Your task to perform on an android device: add a label to a message in the gmail app Image 0: 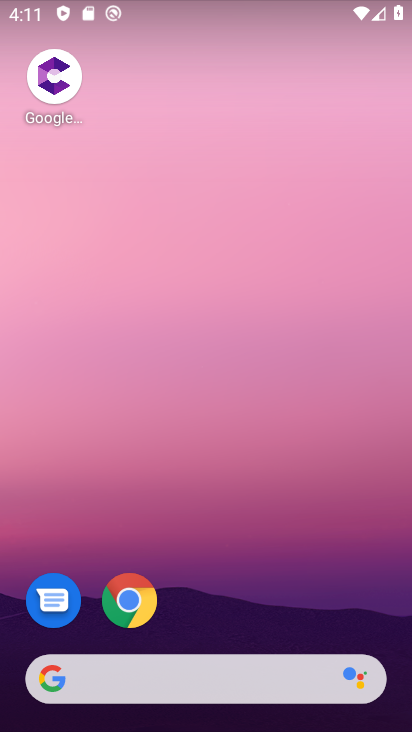
Step 0: press back button
Your task to perform on an android device: add a label to a message in the gmail app Image 1: 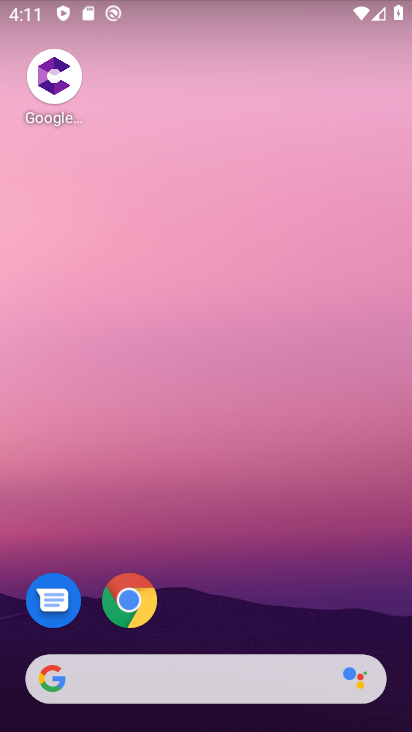
Step 1: drag from (254, 590) to (239, 130)
Your task to perform on an android device: add a label to a message in the gmail app Image 2: 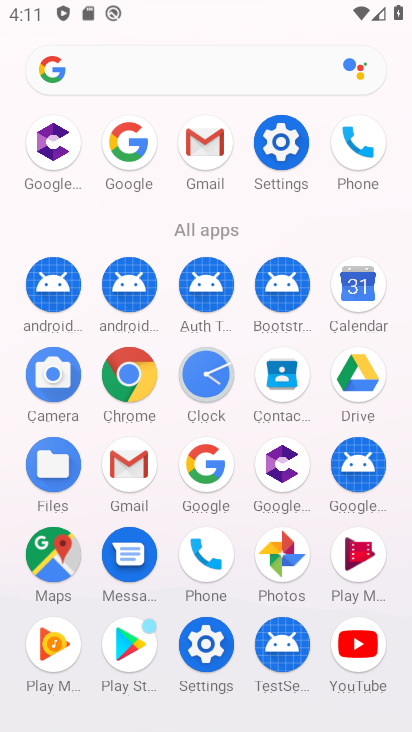
Step 2: click (207, 142)
Your task to perform on an android device: add a label to a message in the gmail app Image 3: 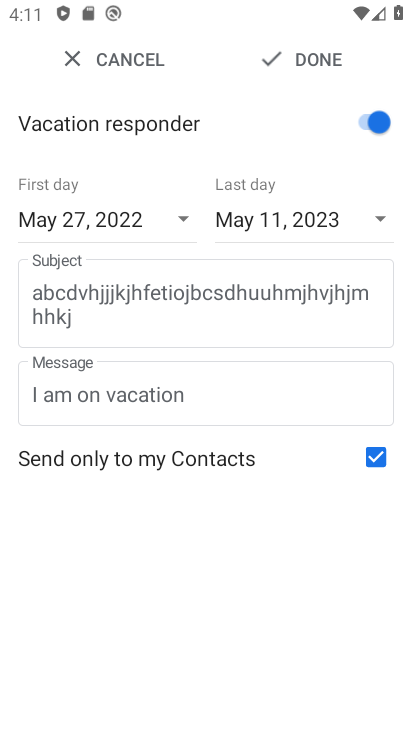
Step 3: click (72, 53)
Your task to perform on an android device: add a label to a message in the gmail app Image 4: 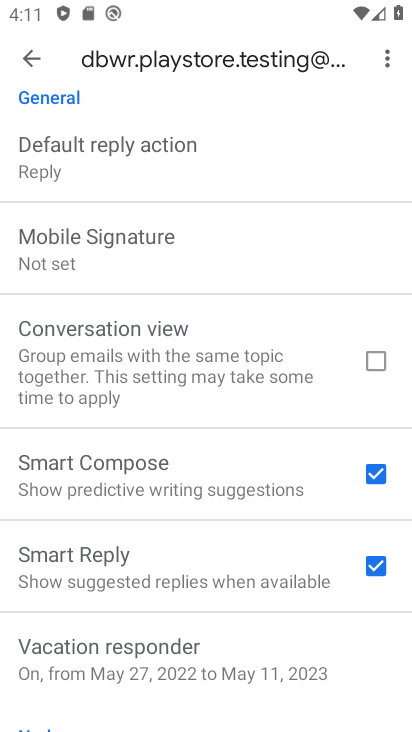
Step 4: click (33, 62)
Your task to perform on an android device: add a label to a message in the gmail app Image 5: 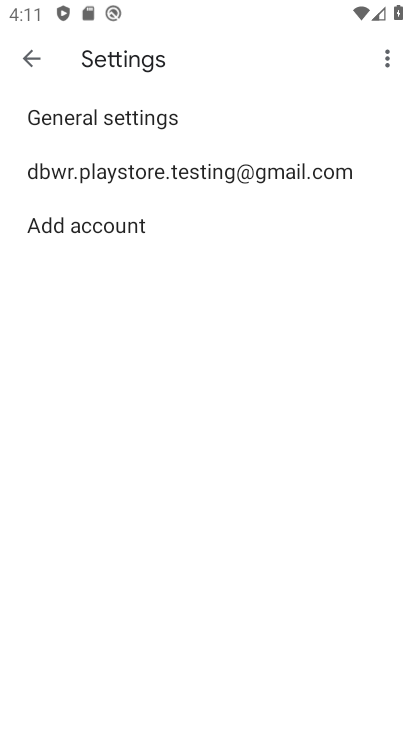
Step 5: click (35, 62)
Your task to perform on an android device: add a label to a message in the gmail app Image 6: 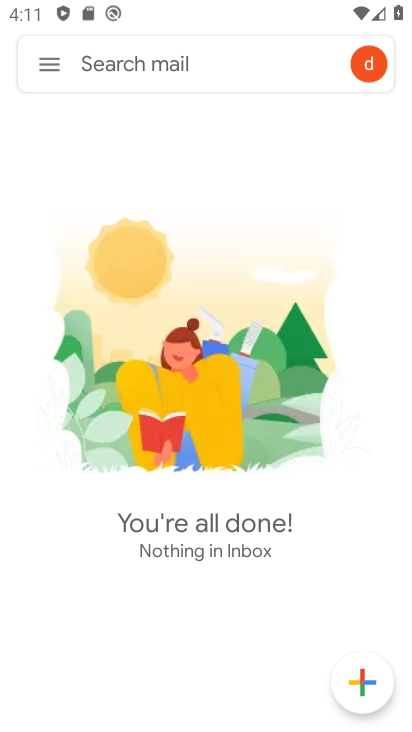
Step 6: click (50, 63)
Your task to perform on an android device: add a label to a message in the gmail app Image 7: 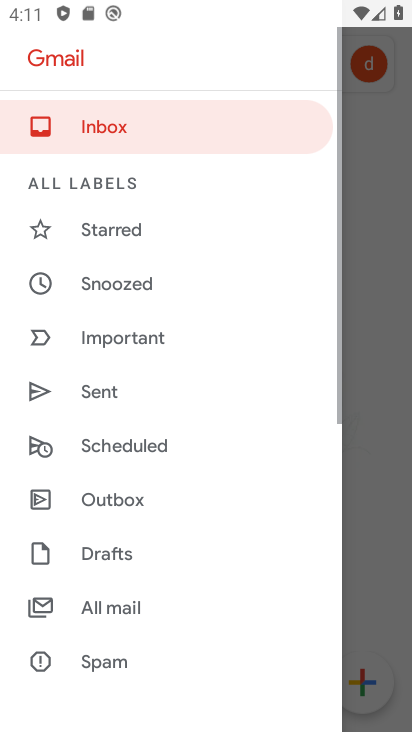
Step 7: drag from (152, 435) to (195, 357)
Your task to perform on an android device: add a label to a message in the gmail app Image 8: 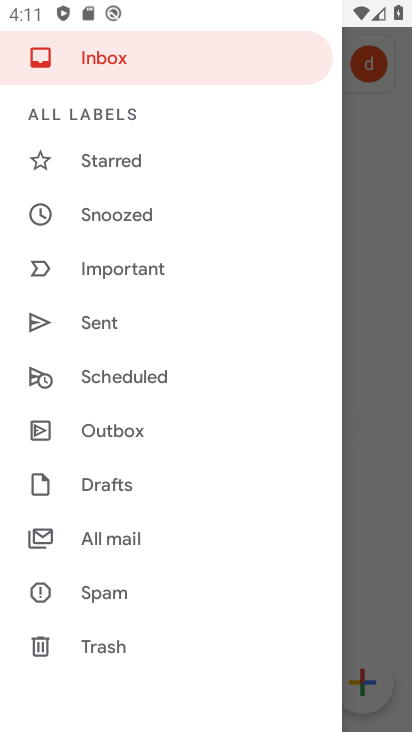
Step 8: click (155, 544)
Your task to perform on an android device: add a label to a message in the gmail app Image 9: 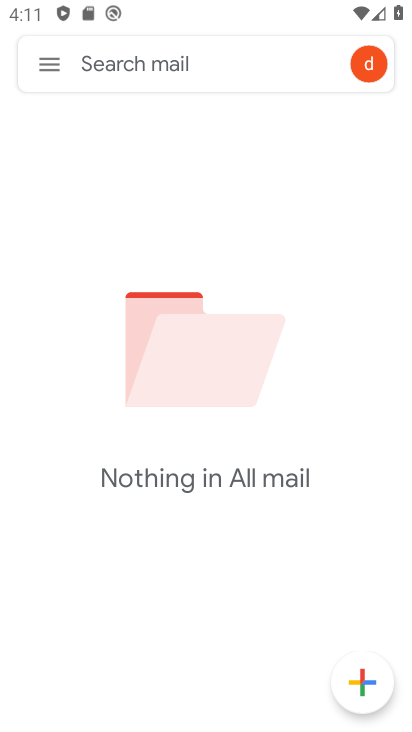
Step 9: click (46, 53)
Your task to perform on an android device: add a label to a message in the gmail app Image 10: 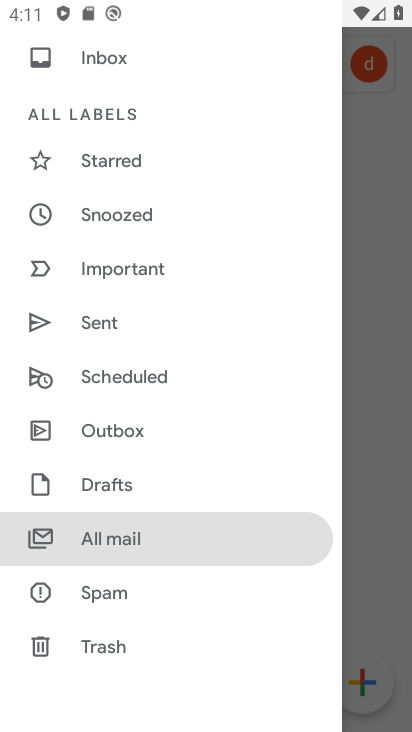
Step 10: click (146, 227)
Your task to perform on an android device: add a label to a message in the gmail app Image 11: 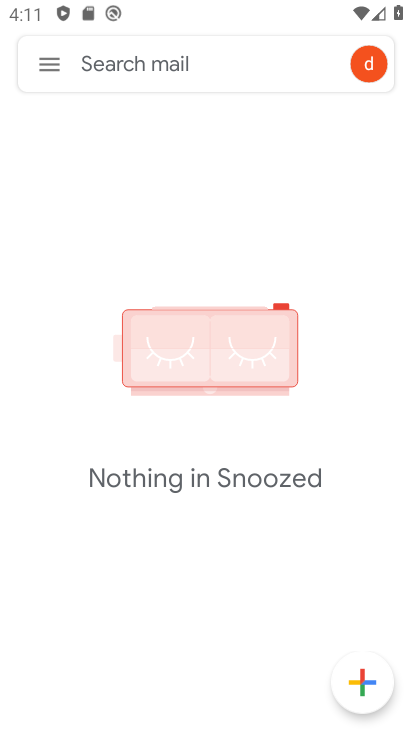
Step 11: task complete